Your task to perform on an android device: Open Google Chrome and click the shortcut for Amazon.com Image 0: 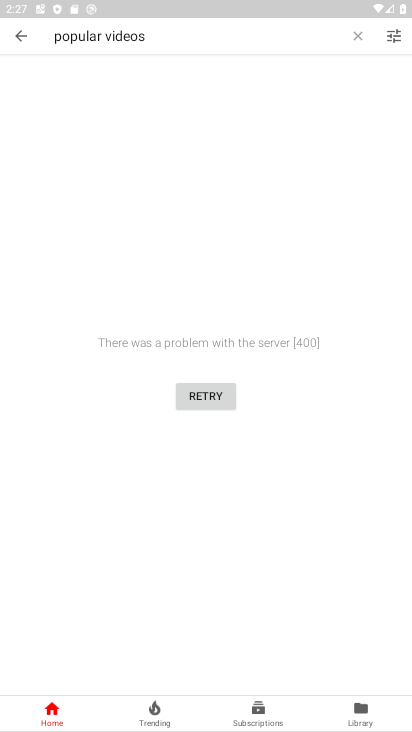
Step 0: press home button
Your task to perform on an android device: Open Google Chrome and click the shortcut for Amazon.com Image 1: 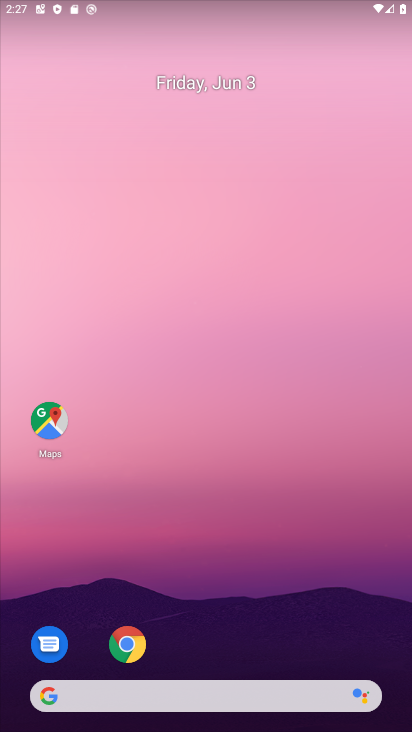
Step 1: click (142, 638)
Your task to perform on an android device: Open Google Chrome and click the shortcut for Amazon.com Image 2: 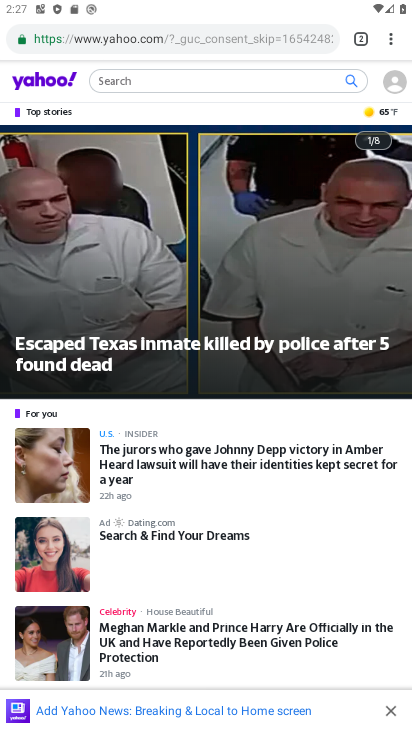
Step 2: click (363, 43)
Your task to perform on an android device: Open Google Chrome and click the shortcut for Amazon.com Image 3: 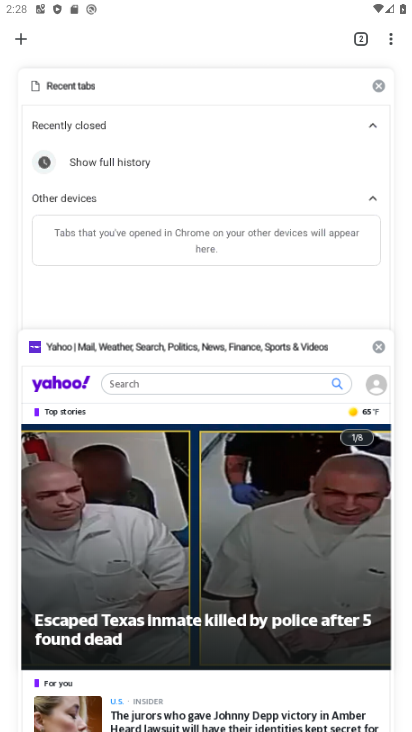
Step 3: click (15, 36)
Your task to perform on an android device: Open Google Chrome and click the shortcut for Amazon.com Image 4: 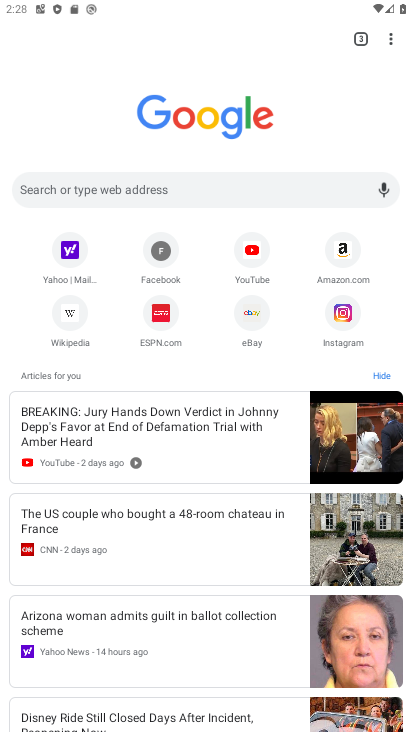
Step 4: click (335, 255)
Your task to perform on an android device: Open Google Chrome and click the shortcut for Amazon.com Image 5: 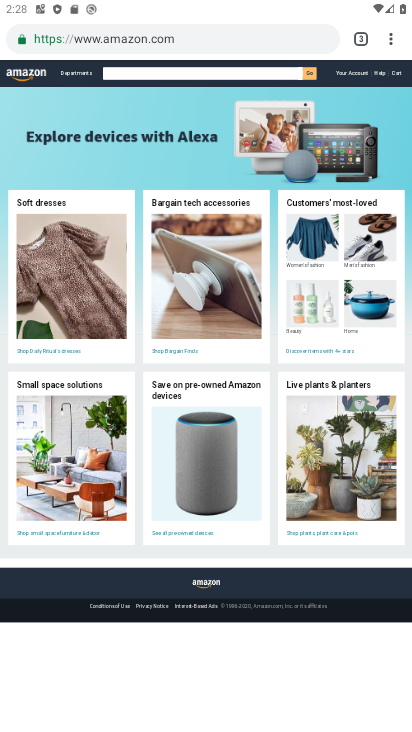
Step 5: task complete